Your task to perform on an android device: Open battery settings Image 0: 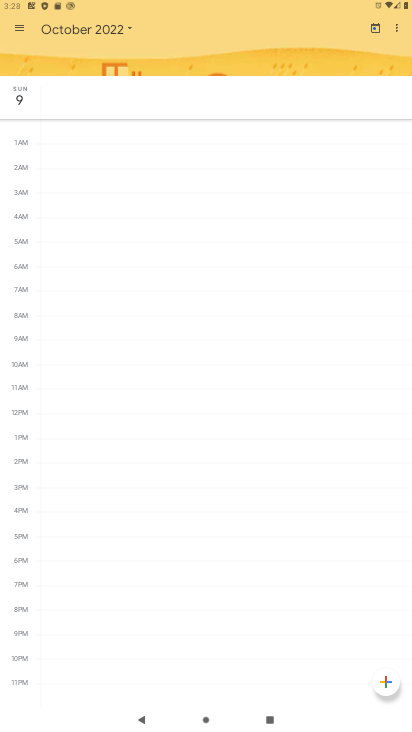
Step 0: drag from (264, 500) to (271, 158)
Your task to perform on an android device: Open battery settings Image 1: 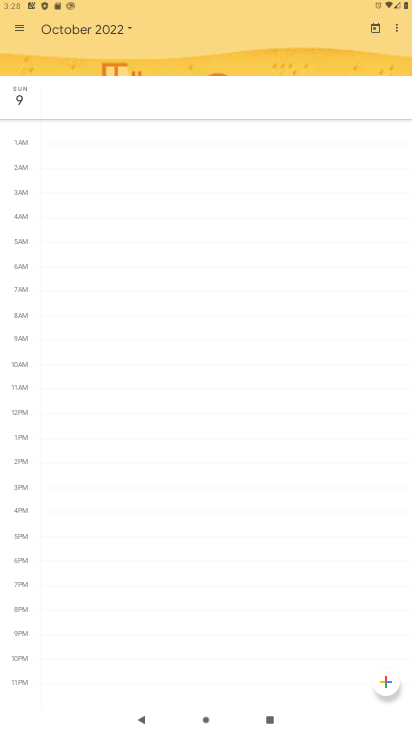
Step 1: press home button
Your task to perform on an android device: Open battery settings Image 2: 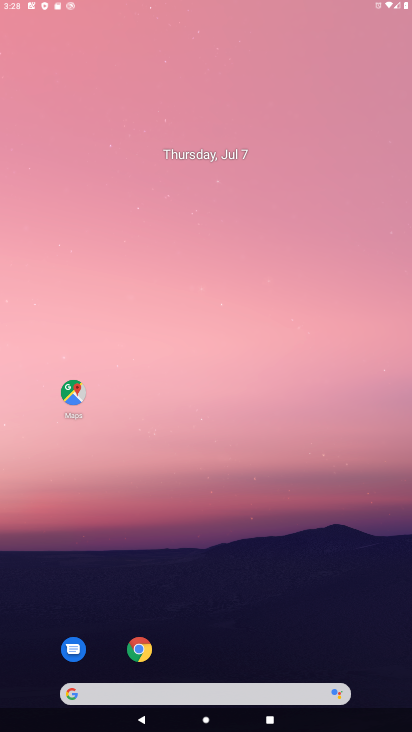
Step 2: drag from (209, 580) to (236, 18)
Your task to perform on an android device: Open battery settings Image 3: 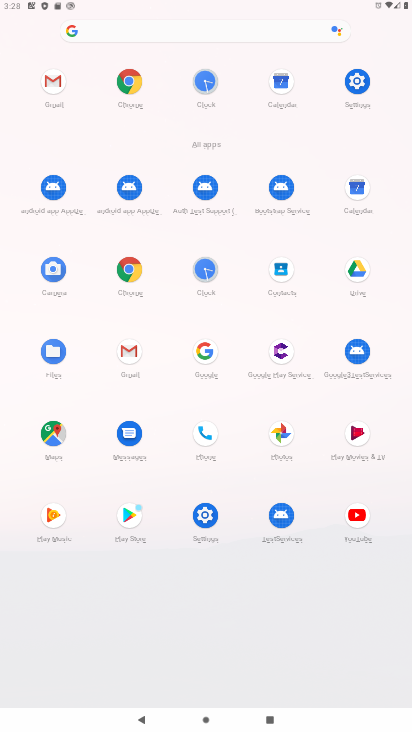
Step 3: click (361, 79)
Your task to perform on an android device: Open battery settings Image 4: 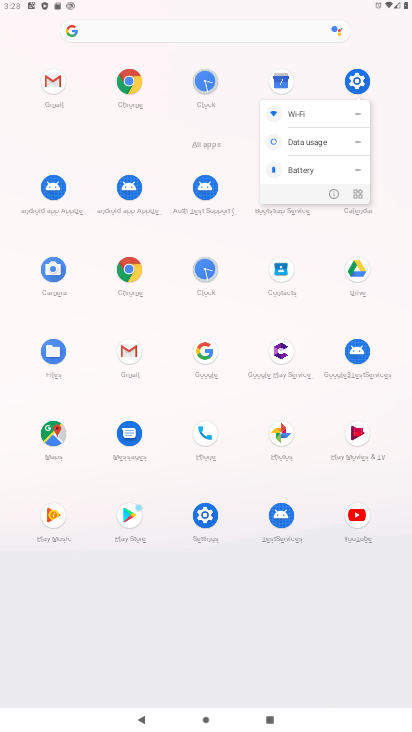
Step 4: click (333, 186)
Your task to perform on an android device: Open battery settings Image 5: 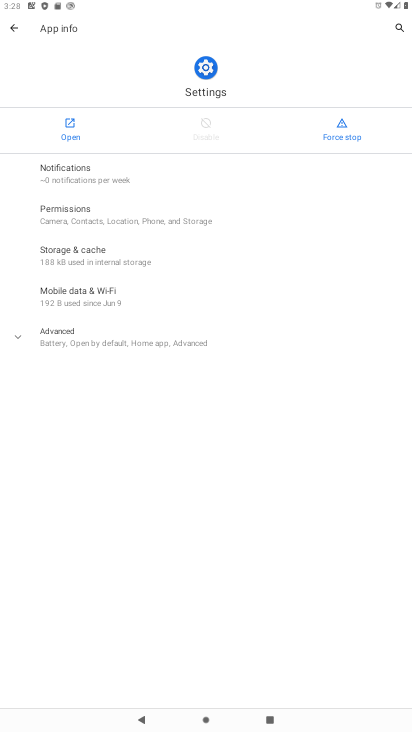
Step 5: click (80, 135)
Your task to perform on an android device: Open battery settings Image 6: 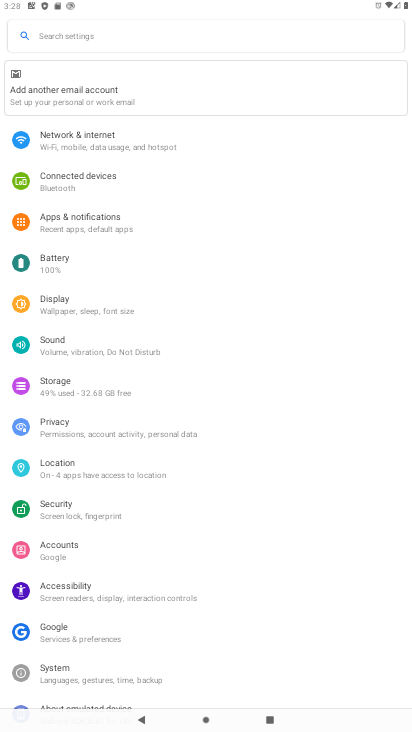
Step 6: click (107, 265)
Your task to perform on an android device: Open battery settings Image 7: 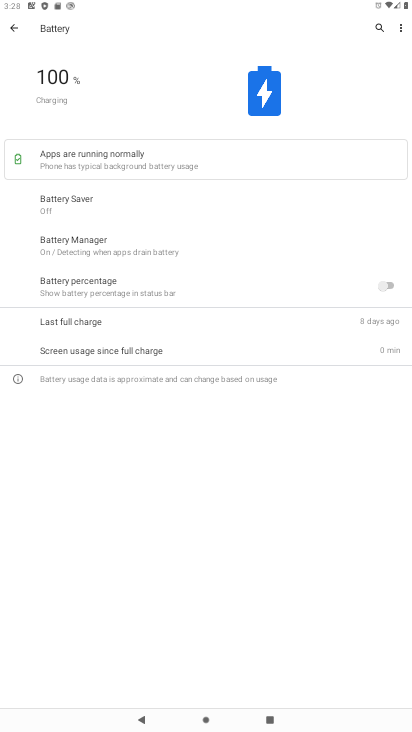
Step 7: task complete